Your task to perform on an android device: visit the assistant section in the google photos Image 0: 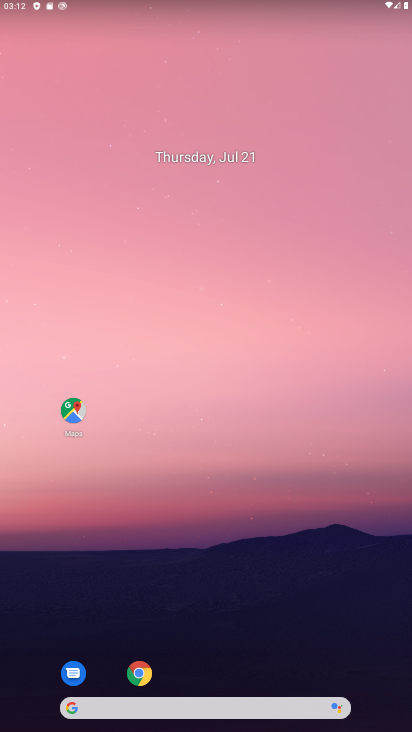
Step 0: drag from (293, 319) to (283, 110)
Your task to perform on an android device: visit the assistant section in the google photos Image 1: 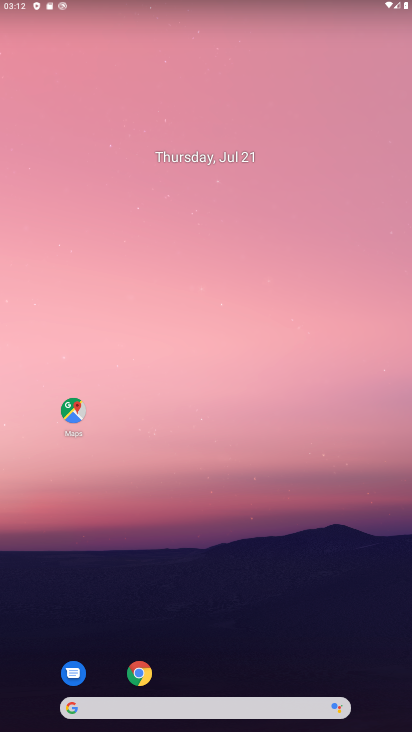
Step 1: drag from (301, 627) to (251, 96)
Your task to perform on an android device: visit the assistant section in the google photos Image 2: 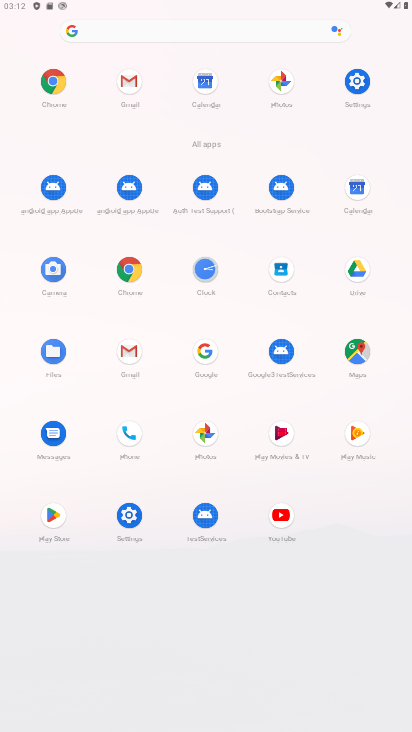
Step 2: click (279, 83)
Your task to perform on an android device: visit the assistant section in the google photos Image 3: 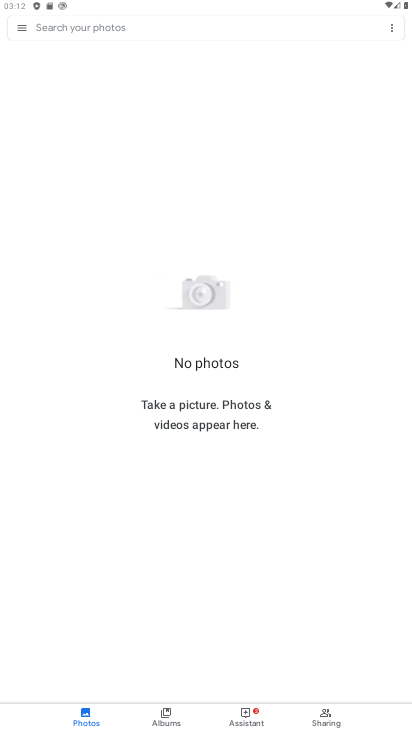
Step 3: click (259, 729)
Your task to perform on an android device: visit the assistant section in the google photos Image 4: 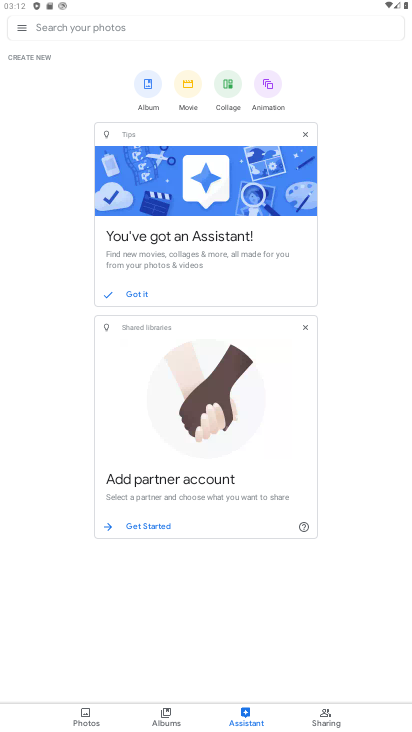
Step 4: task complete